Your task to perform on an android device: See recent photos Image 0: 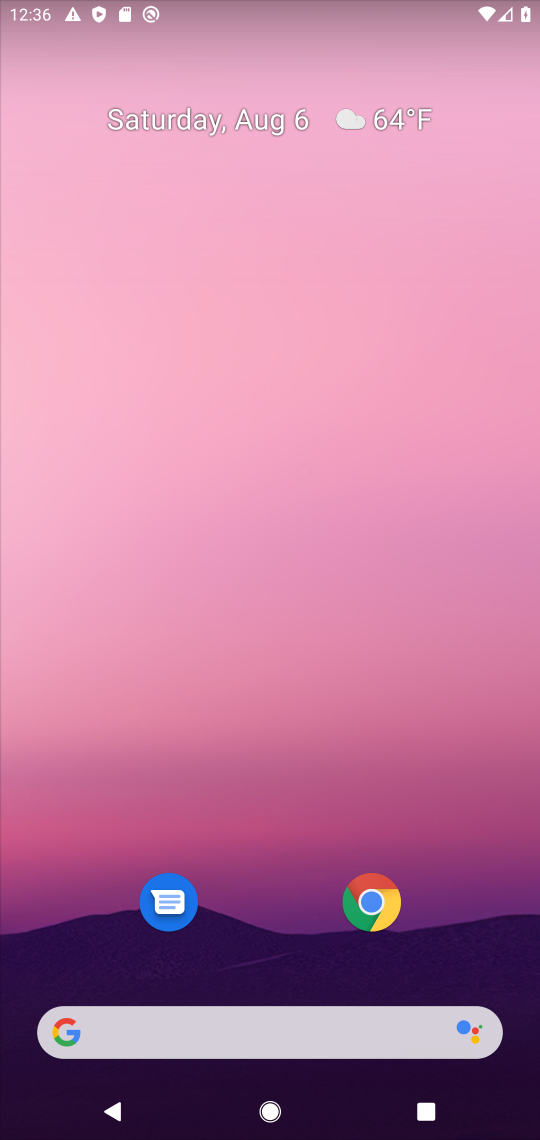
Step 0: drag from (175, 313) to (152, 94)
Your task to perform on an android device: See recent photos Image 1: 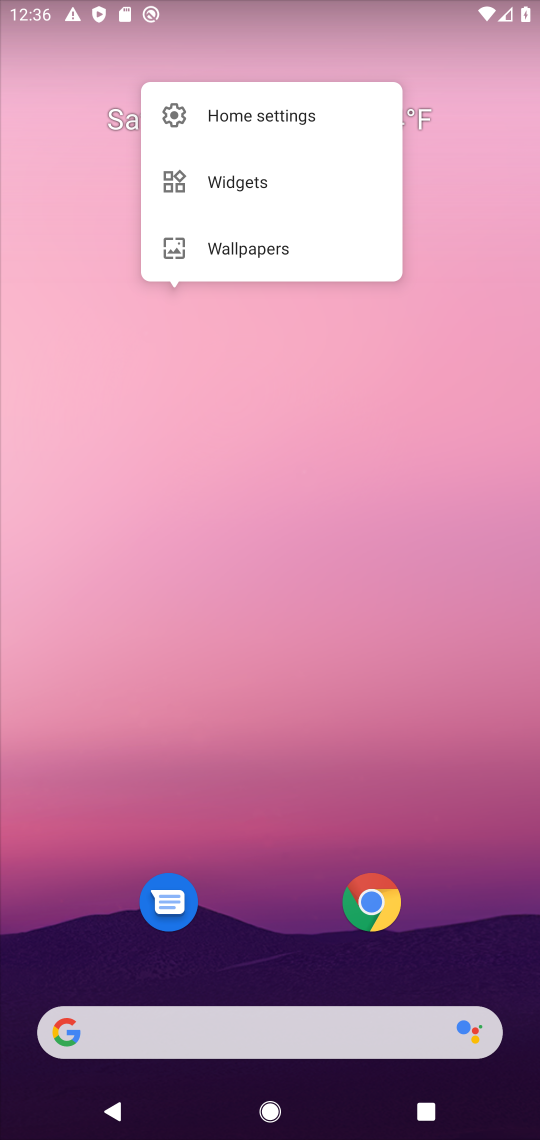
Step 1: click (183, 484)
Your task to perform on an android device: See recent photos Image 2: 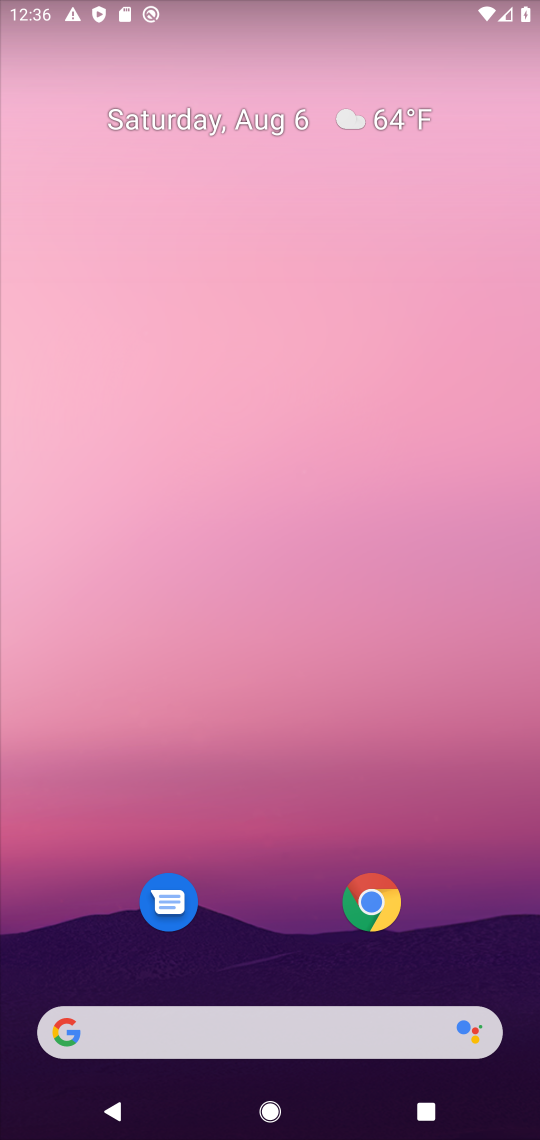
Step 2: drag from (249, 979) to (84, 353)
Your task to perform on an android device: See recent photos Image 3: 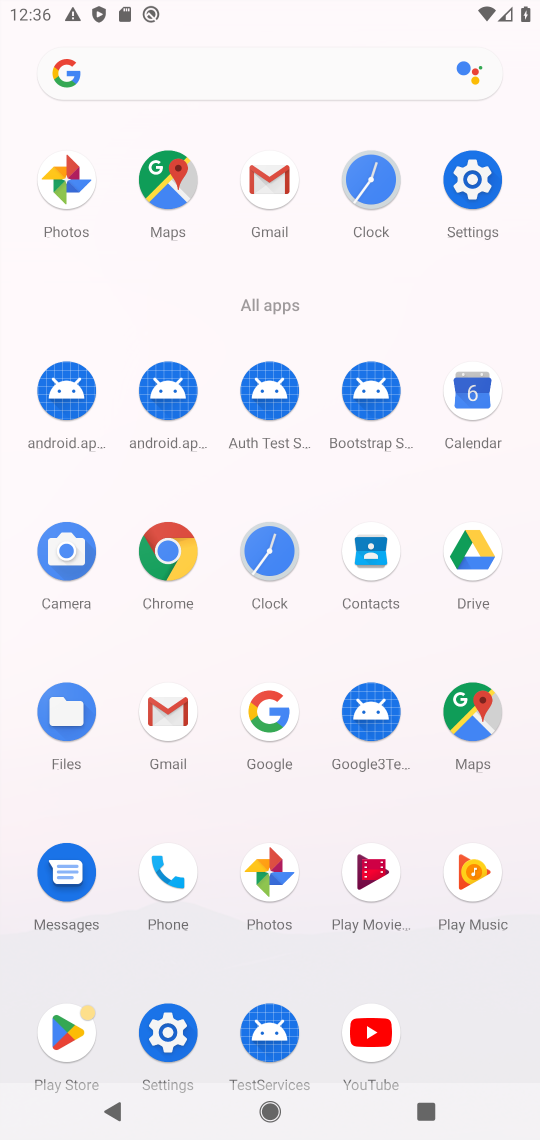
Step 3: click (61, 182)
Your task to perform on an android device: See recent photos Image 4: 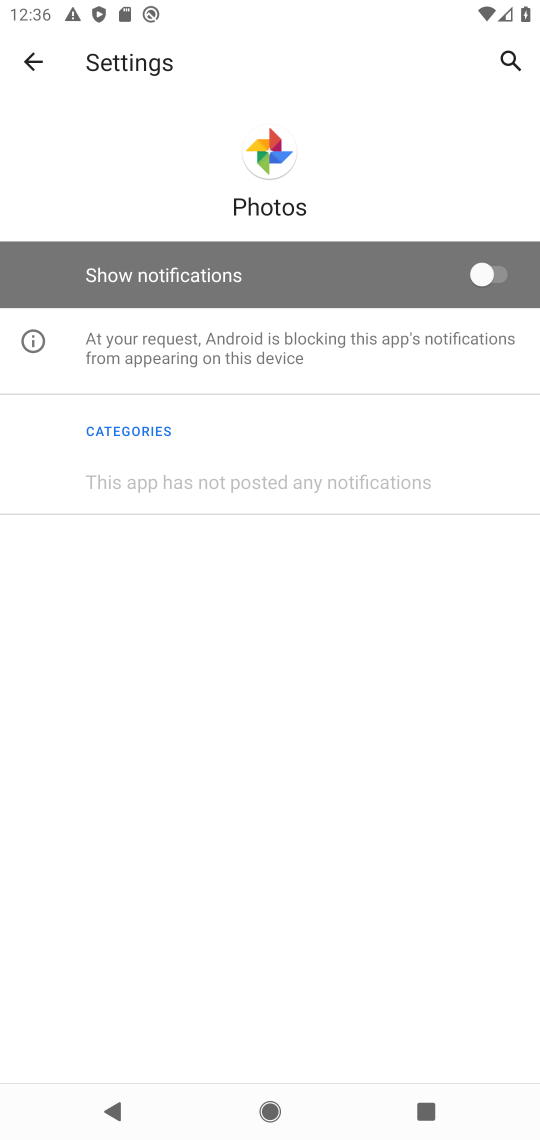
Step 4: click (32, 53)
Your task to perform on an android device: See recent photos Image 5: 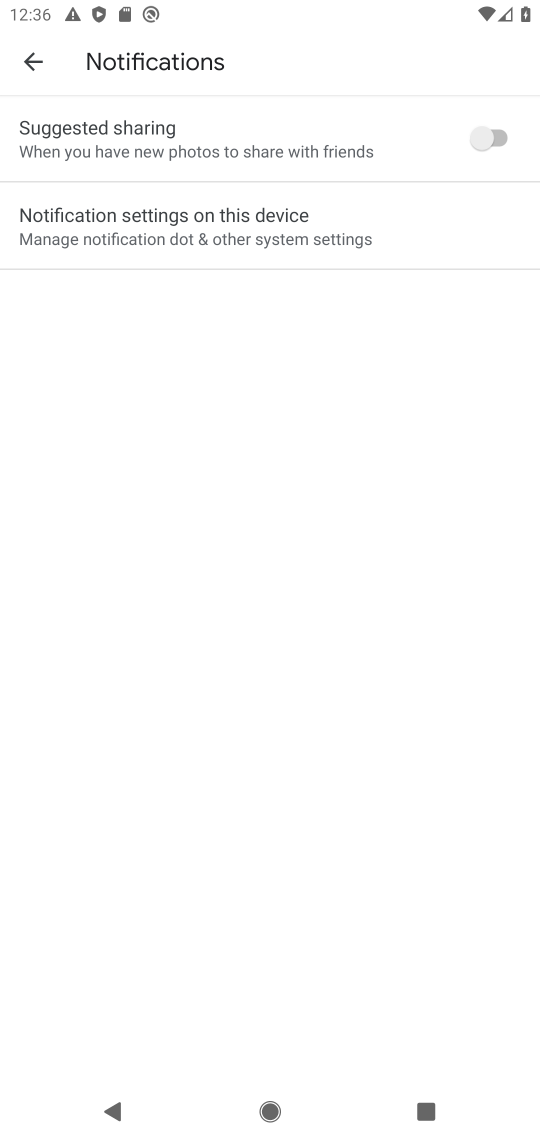
Step 5: click (26, 62)
Your task to perform on an android device: See recent photos Image 6: 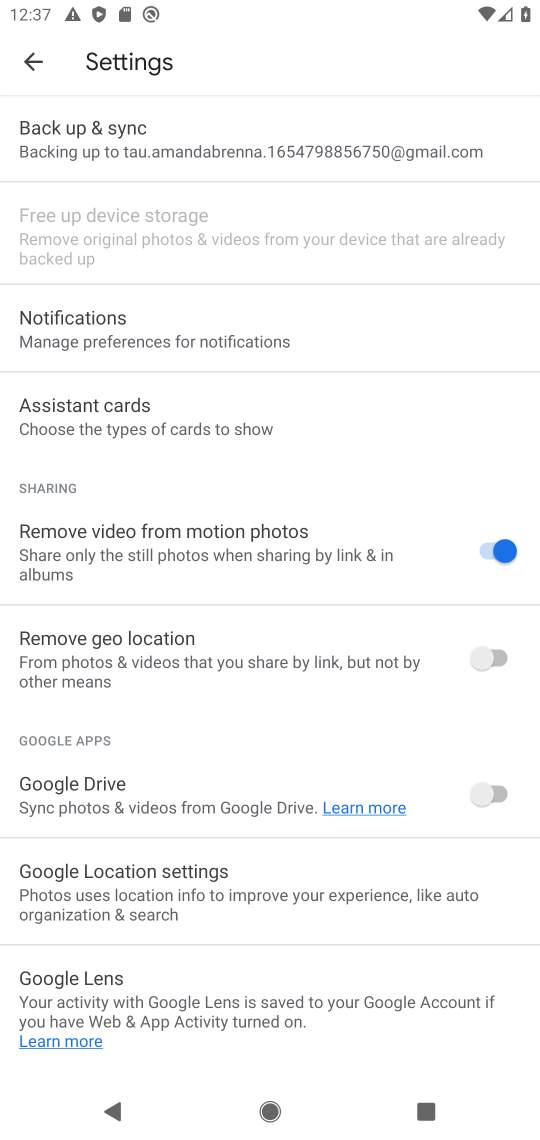
Step 6: click (35, 54)
Your task to perform on an android device: See recent photos Image 7: 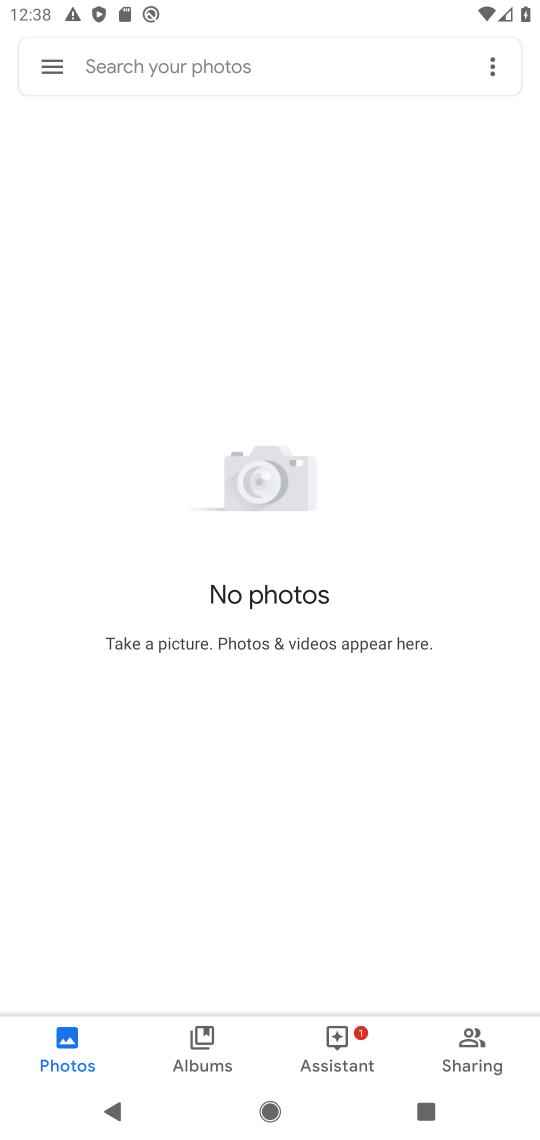
Step 7: task complete